Your task to perform on an android device: allow cookies in the chrome app Image 0: 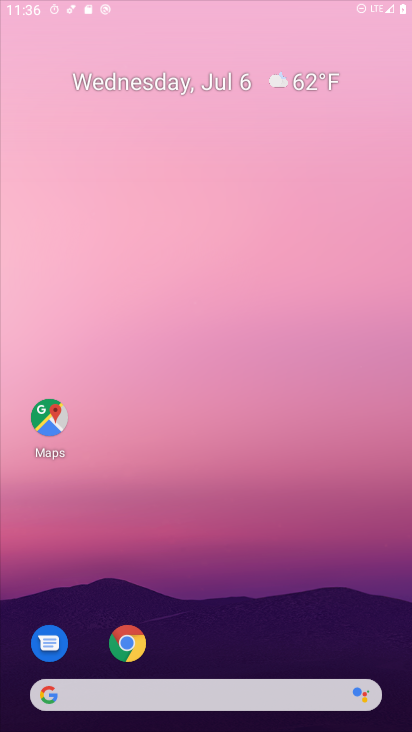
Step 0: press home button
Your task to perform on an android device: allow cookies in the chrome app Image 1: 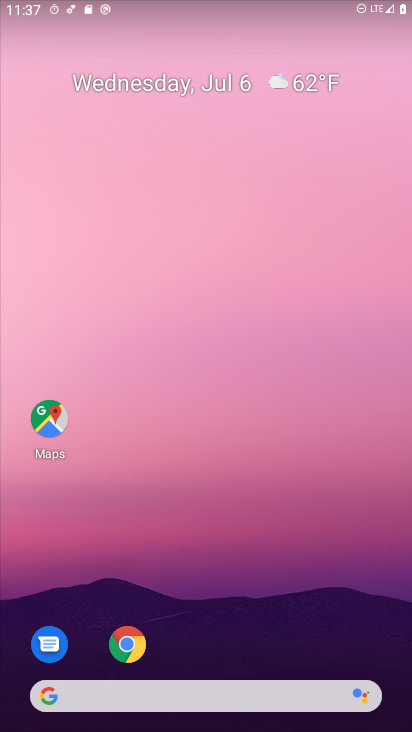
Step 1: click (128, 636)
Your task to perform on an android device: allow cookies in the chrome app Image 2: 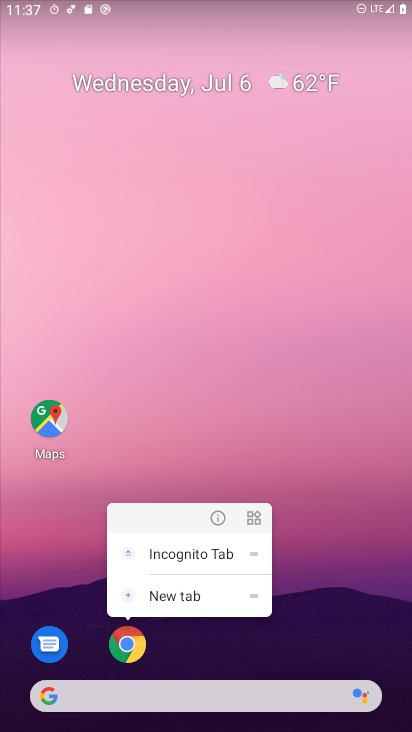
Step 2: click (132, 653)
Your task to perform on an android device: allow cookies in the chrome app Image 3: 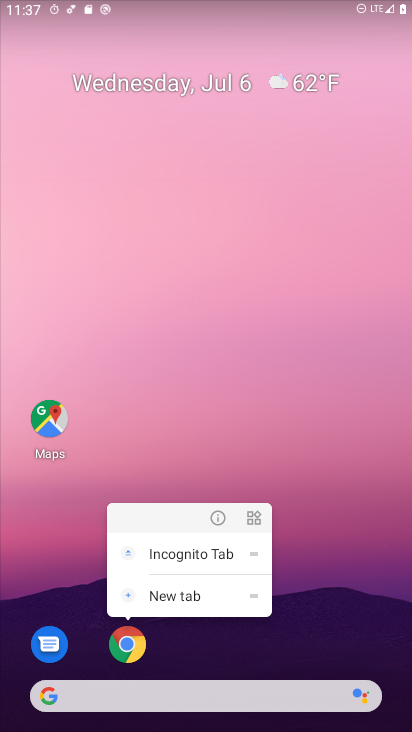
Step 3: click (284, 657)
Your task to perform on an android device: allow cookies in the chrome app Image 4: 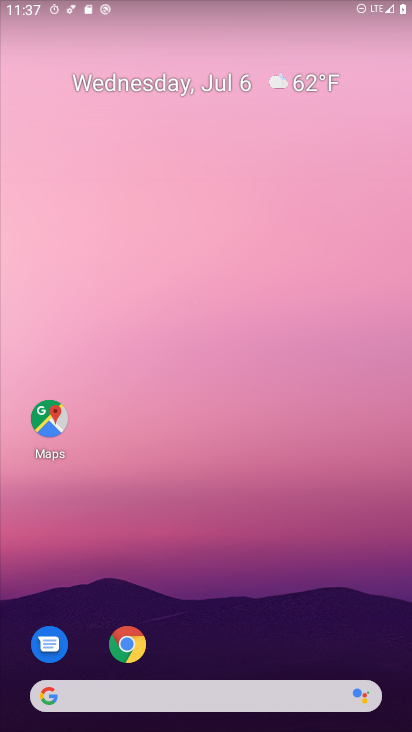
Step 4: drag from (287, 649) to (373, 50)
Your task to perform on an android device: allow cookies in the chrome app Image 5: 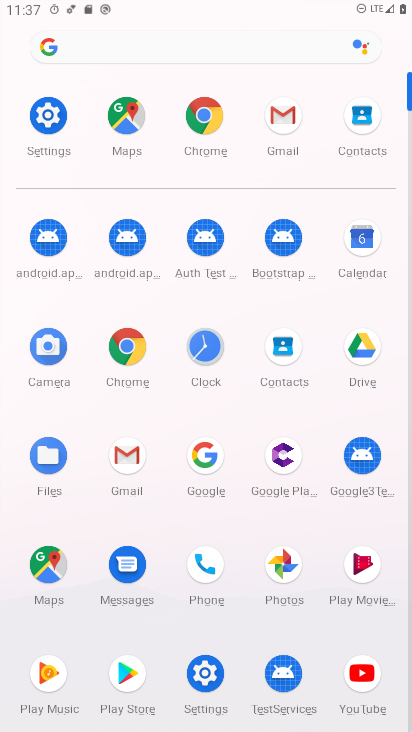
Step 5: click (204, 120)
Your task to perform on an android device: allow cookies in the chrome app Image 6: 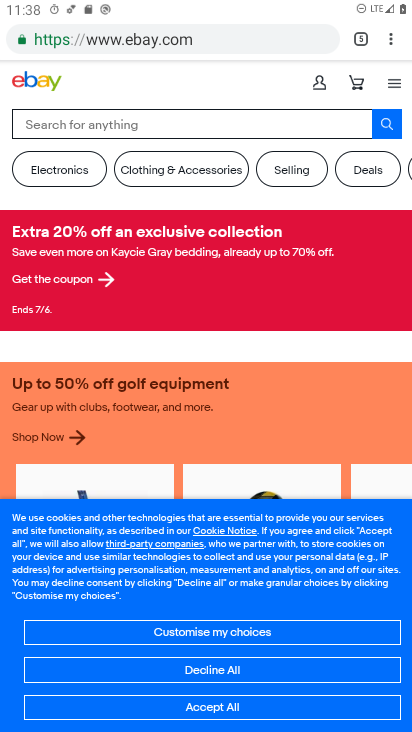
Step 6: click (390, 38)
Your task to perform on an android device: allow cookies in the chrome app Image 7: 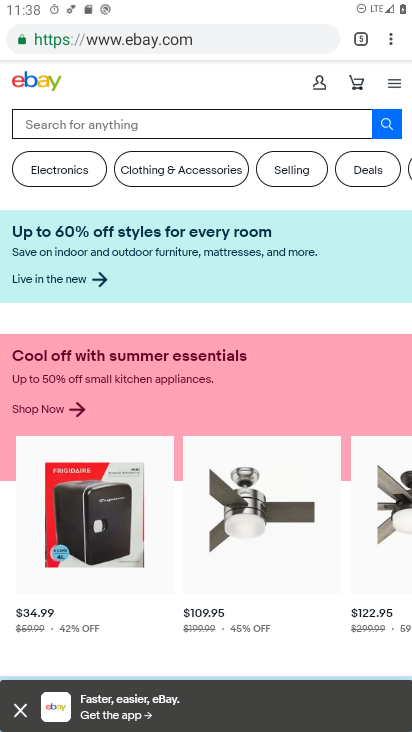
Step 7: drag from (390, 38) to (277, 476)
Your task to perform on an android device: allow cookies in the chrome app Image 8: 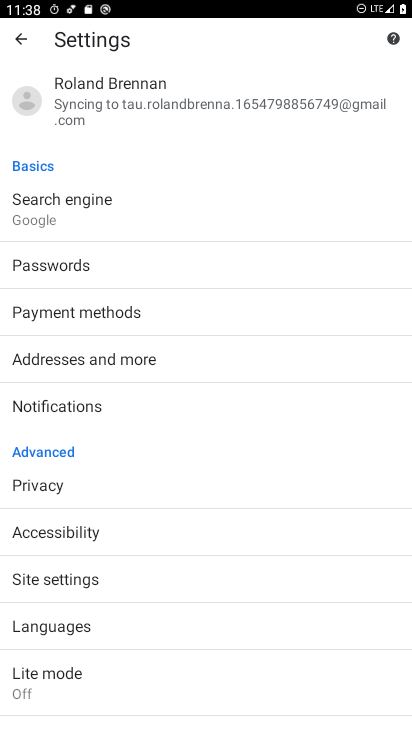
Step 8: click (50, 579)
Your task to perform on an android device: allow cookies in the chrome app Image 9: 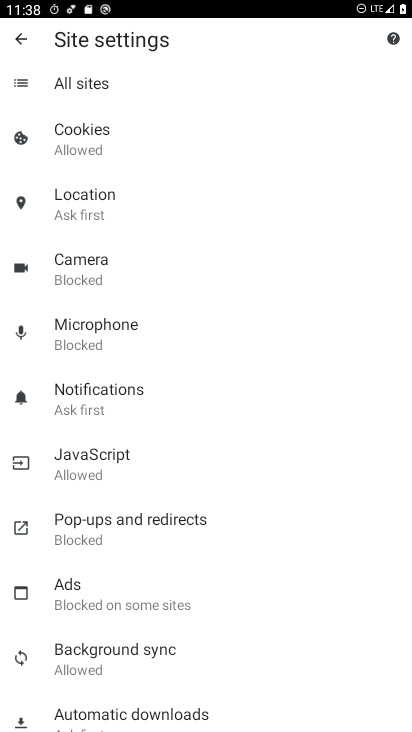
Step 9: click (71, 148)
Your task to perform on an android device: allow cookies in the chrome app Image 10: 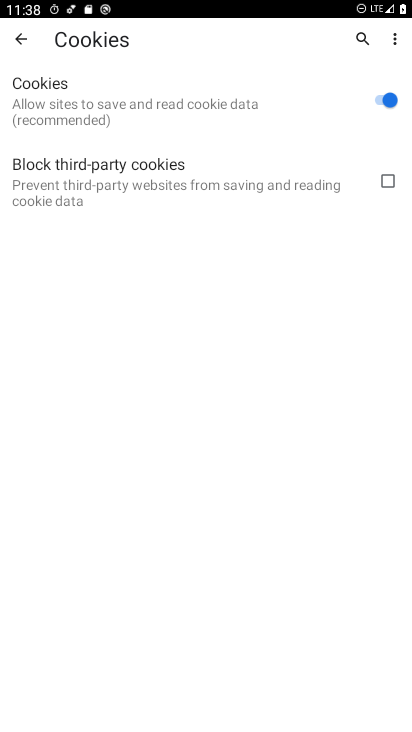
Step 10: task complete